Your task to perform on an android device: Open display settings Image 0: 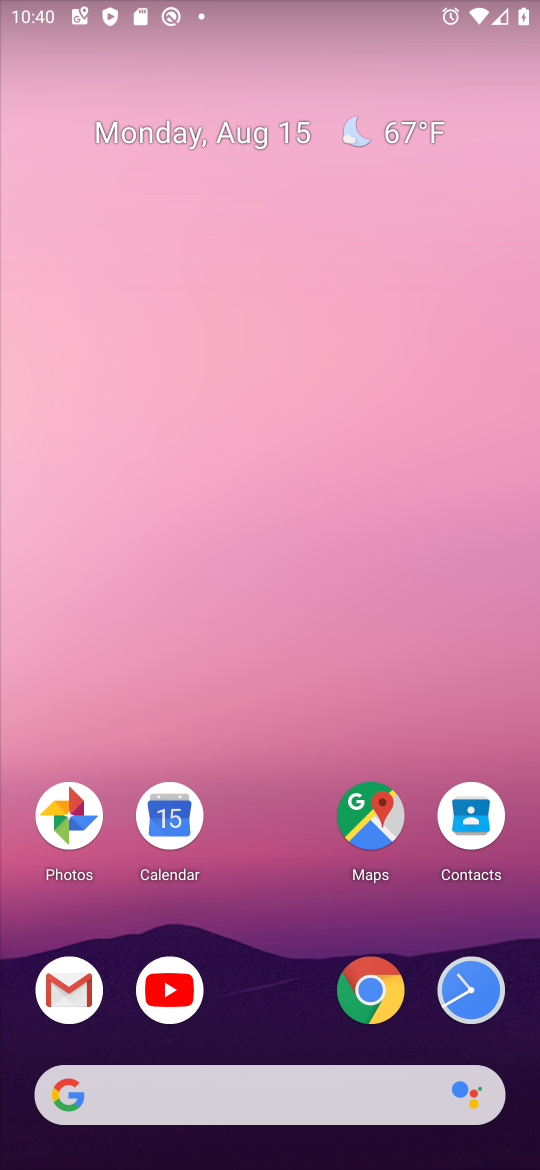
Step 0: drag from (266, 1002) to (300, 275)
Your task to perform on an android device: Open display settings Image 1: 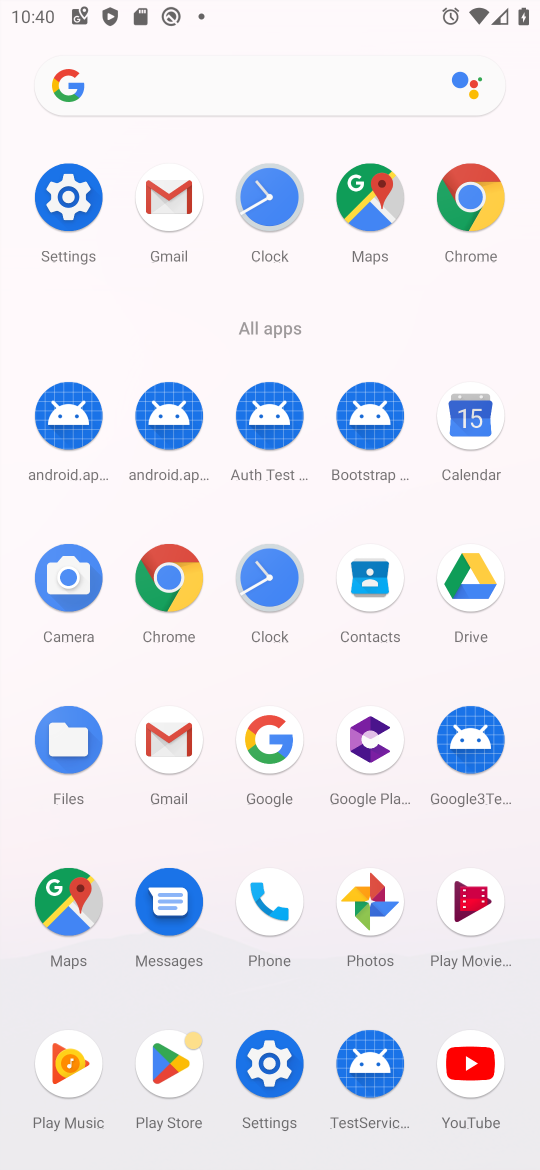
Step 1: click (57, 187)
Your task to perform on an android device: Open display settings Image 2: 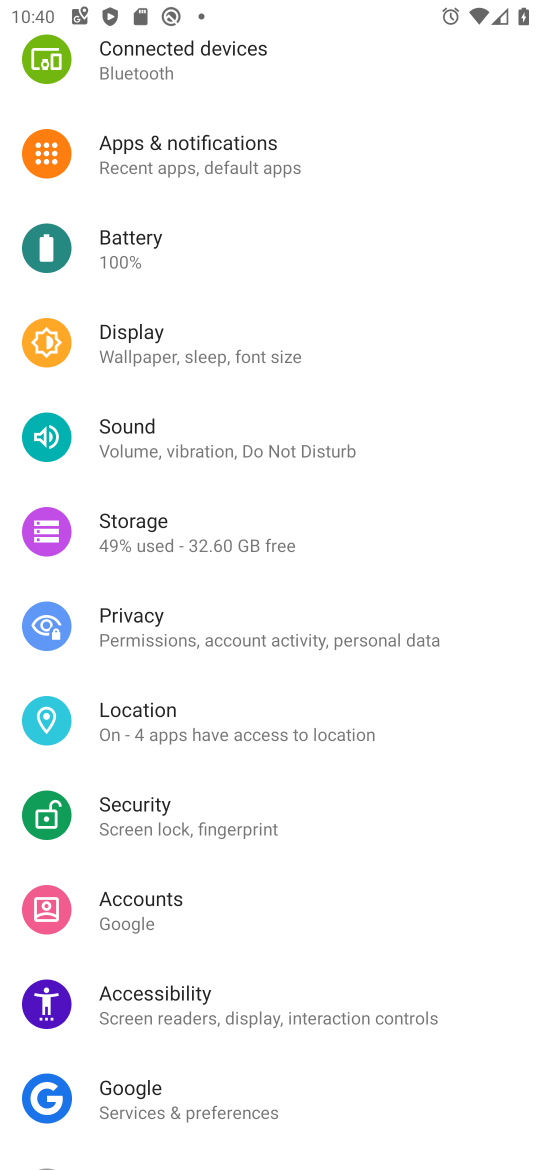
Step 2: click (145, 330)
Your task to perform on an android device: Open display settings Image 3: 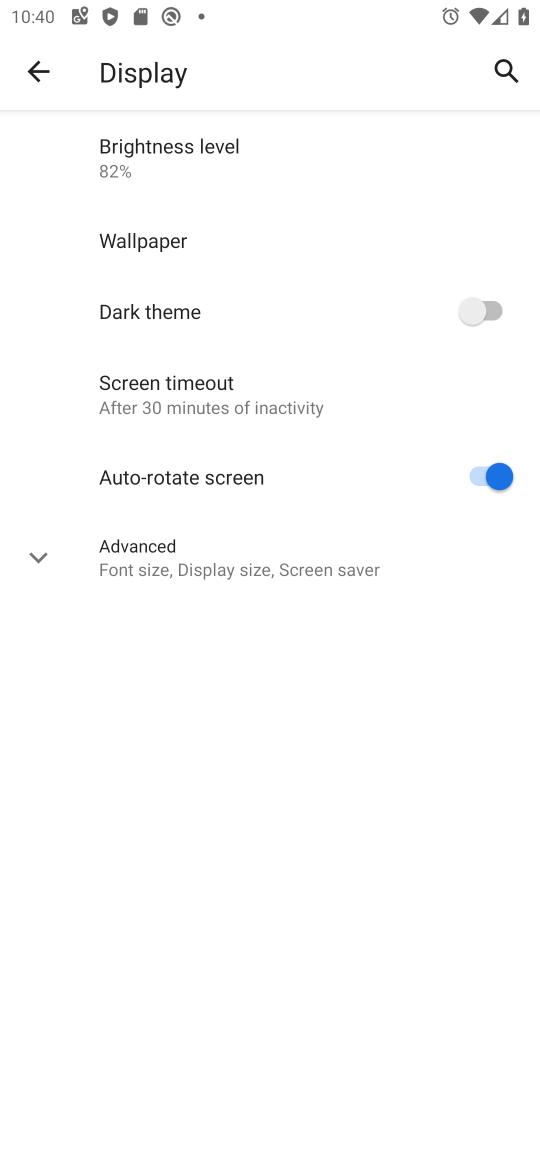
Step 3: task complete